Your task to perform on an android device: open app "Pandora - Music & Podcasts" Image 0: 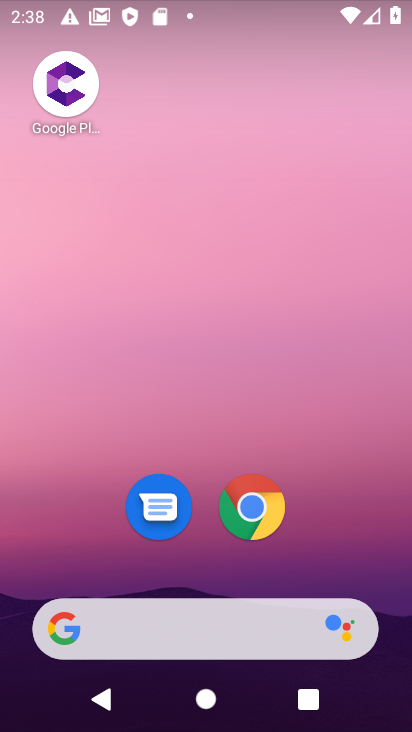
Step 0: drag from (325, 554) to (332, 66)
Your task to perform on an android device: open app "Pandora - Music & Podcasts" Image 1: 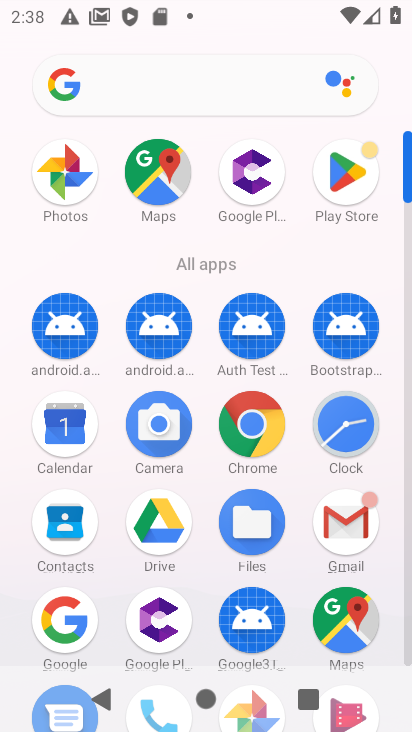
Step 1: click (363, 184)
Your task to perform on an android device: open app "Pandora - Music & Podcasts" Image 2: 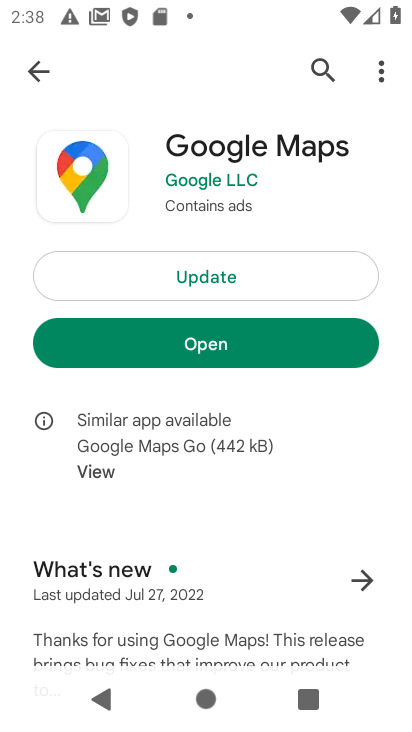
Step 2: click (323, 72)
Your task to perform on an android device: open app "Pandora - Music & Podcasts" Image 3: 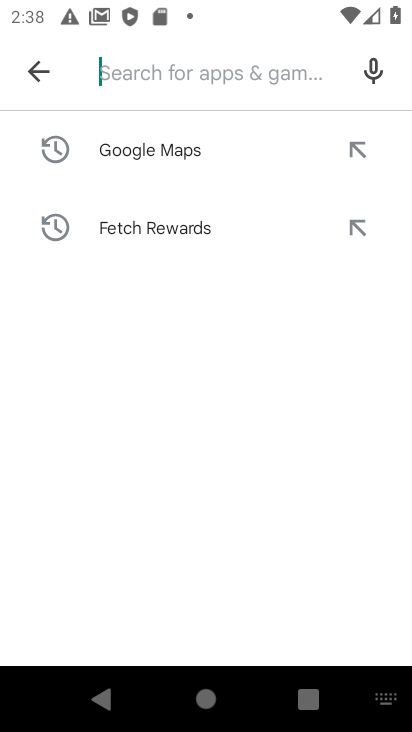
Step 3: type "Pandora"
Your task to perform on an android device: open app "Pandora - Music & Podcasts" Image 4: 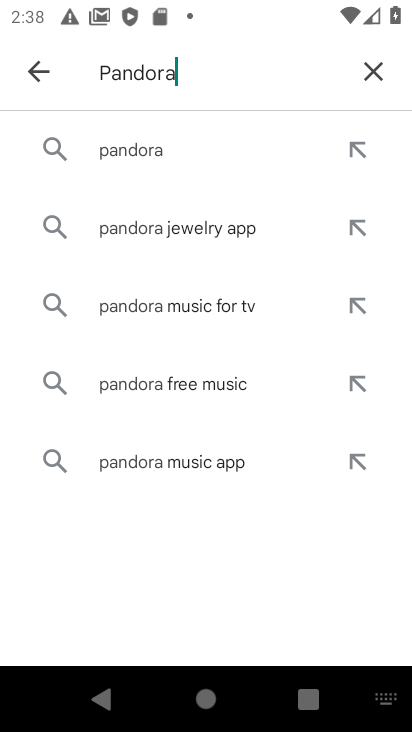
Step 4: press enter
Your task to perform on an android device: open app "Pandora - Music & Podcasts" Image 5: 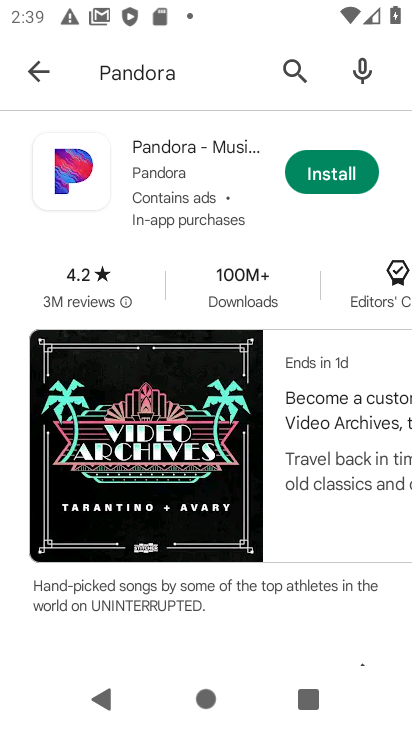
Step 5: task complete